Your task to perform on an android device: open app "McDonald's" (install if not already installed) Image 0: 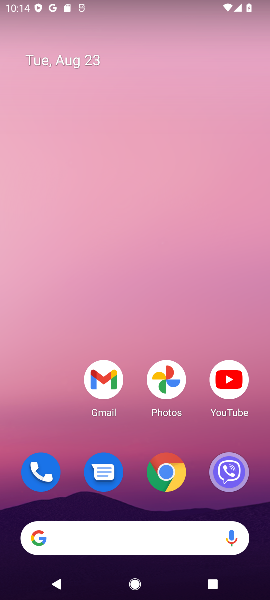
Step 0: drag from (137, 498) to (163, 22)
Your task to perform on an android device: open app "McDonald's" (install if not already installed) Image 1: 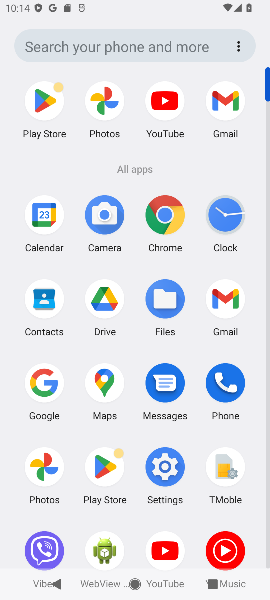
Step 1: click (113, 468)
Your task to perform on an android device: open app "McDonald's" (install if not already installed) Image 2: 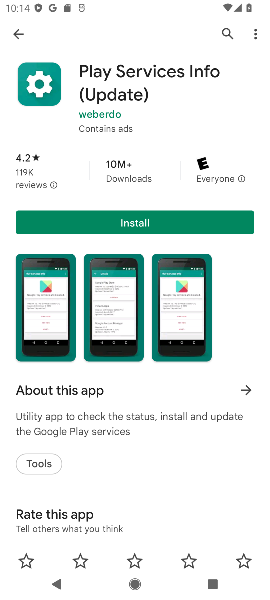
Step 2: click (22, 37)
Your task to perform on an android device: open app "McDonald's" (install if not already installed) Image 3: 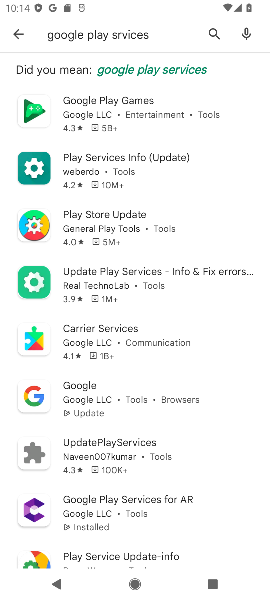
Step 3: click (104, 37)
Your task to perform on an android device: open app "McDonald's" (install if not already installed) Image 4: 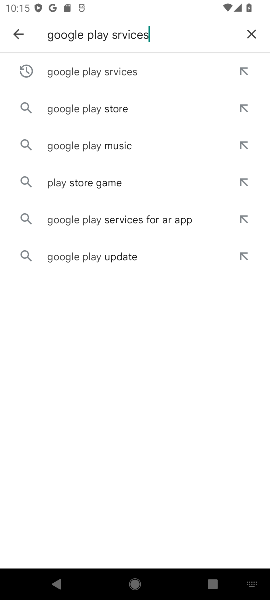
Step 4: click (250, 25)
Your task to perform on an android device: open app "McDonald's" (install if not already installed) Image 5: 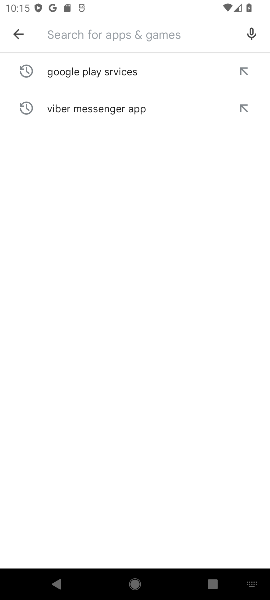
Step 5: type "McDonalds"
Your task to perform on an android device: open app "McDonald's" (install if not already installed) Image 6: 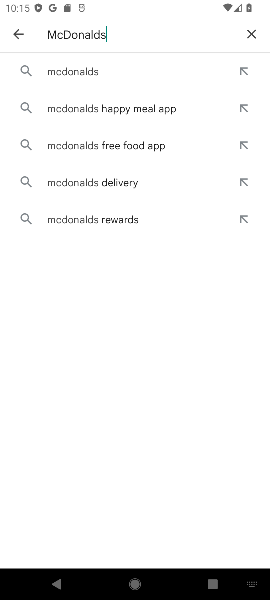
Step 6: click (83, 74)
Your task to perform on an android device: open app "McDonald's" (install if not already installed) Image 7: 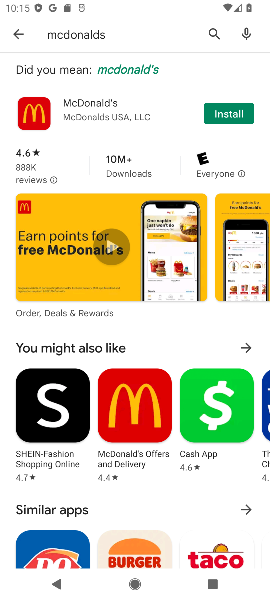
Step 7: click (237, 110)
Your task to perform on an android device: open app "McDonald's" (install if not already installed) Image 8: 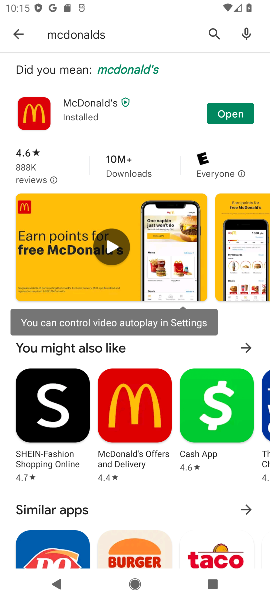
Step 8: click (229, 111)
Your task to perform on an android device: open app "McDonald's" (install if not already installed) Image 9: 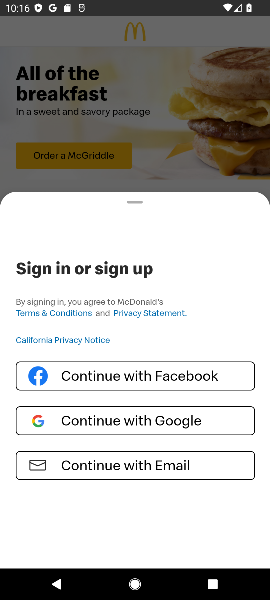
Step 9: click (147, 422)
Your task to perform on an android device: open app "McDonald's" (install if not already installed) Image 10: 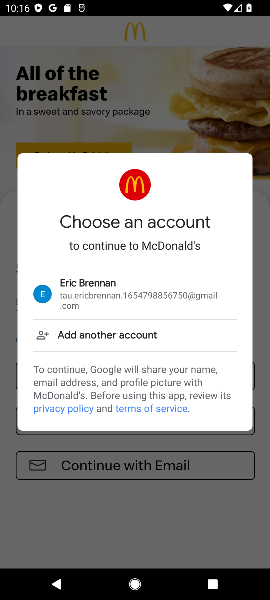
Step 10: click (128, 268)
Your task to perform on an android device: open app "McDonald's" (install if not already installed) Image 11: 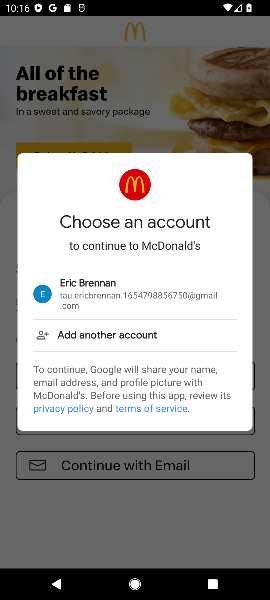
Step 11: click (136, 297)
Your task to perform on an android device: open app "McDonald's" (install if not already installed) Image 12: 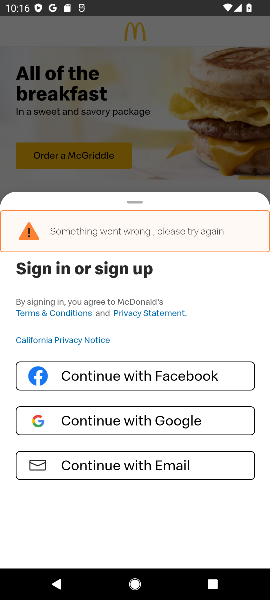
Step 12: click (149, 419)
Your task to perform on an android device: open app "McDonald's" (install if not already installed) Image 13: 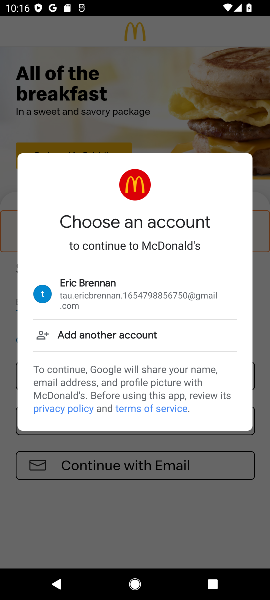
Step 13: click (126, 284)
Your task to perform on an android device: open app "McDonald's" (install if not already installed) Image 14: 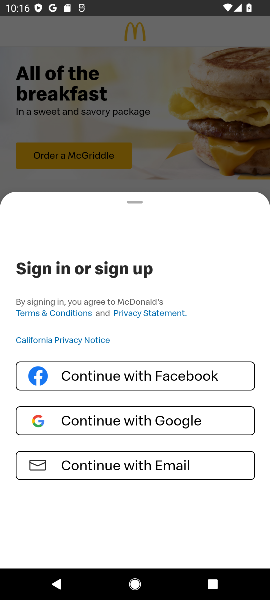
Step 14: click (133, 417)
Your task to perform on an android device: open app "McDonald's" (install if not already installed) Image 15: 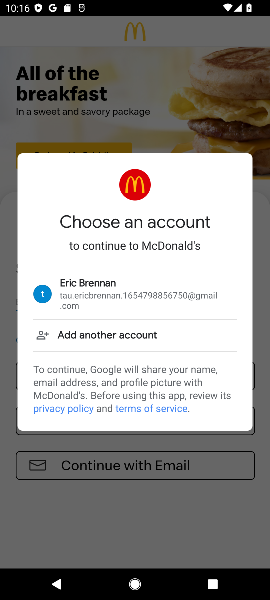
Step 15: click (115, 303)
Your task to perform on an android device: open app "McDonald's" (install if not already installed) Image 16: 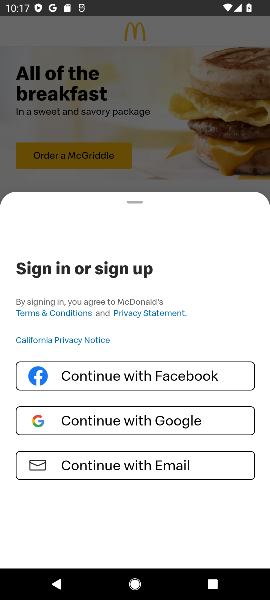
Step 16: task complete